Your task to perform on an android device: Go to Maps Image 0: 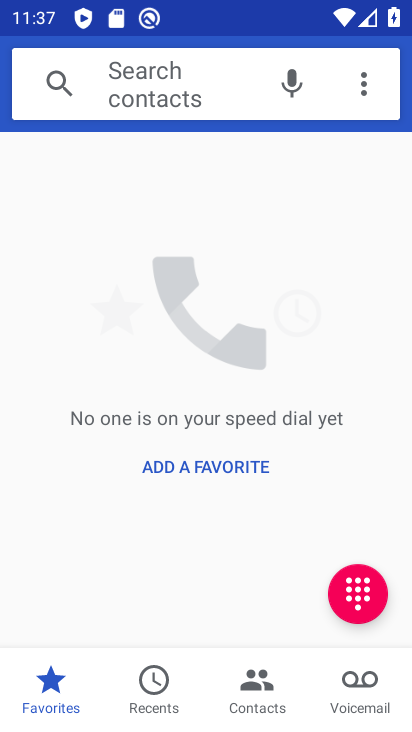
Step 0: press home button
Your task to perform on an android device: Go to Maps Image 1: 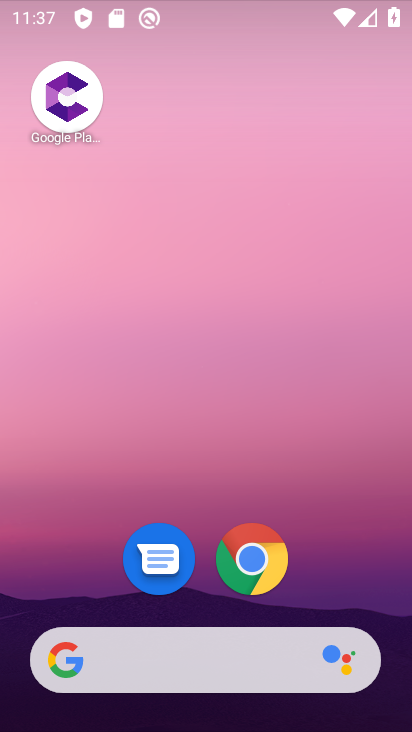
Step 1: drag from (335, 546) to (311, 152)
Your task to perform on an android device: Go to Maps Image 2: 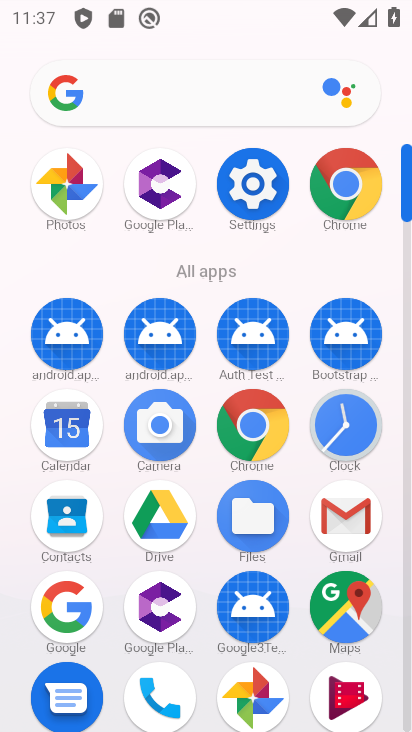
Step 2: click (340, 588)
Your task to perform on an android device: Go to Maps Image 3: 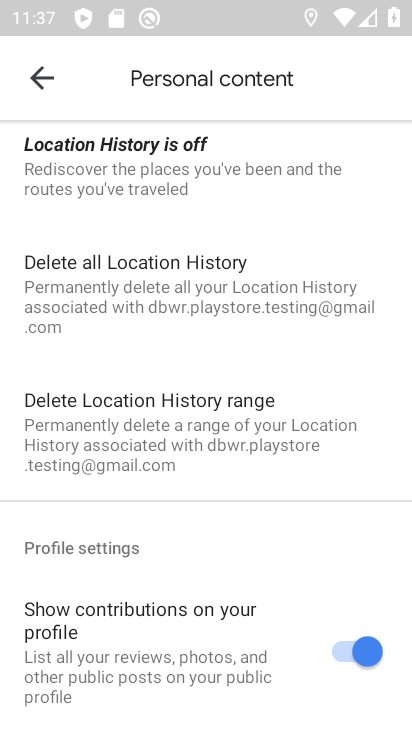
Step 3: click (30, 88)
Your task to perform on an android device: Go to Maps Image 4: 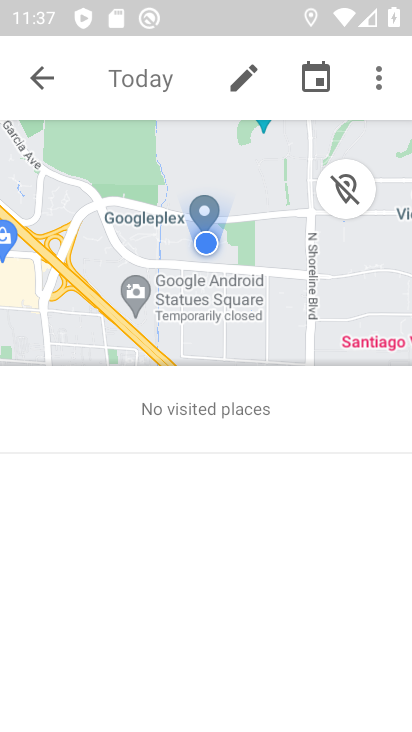
Step 4: click (30, 88)
Your task to perform on an android device: Go to Maps Image 5: 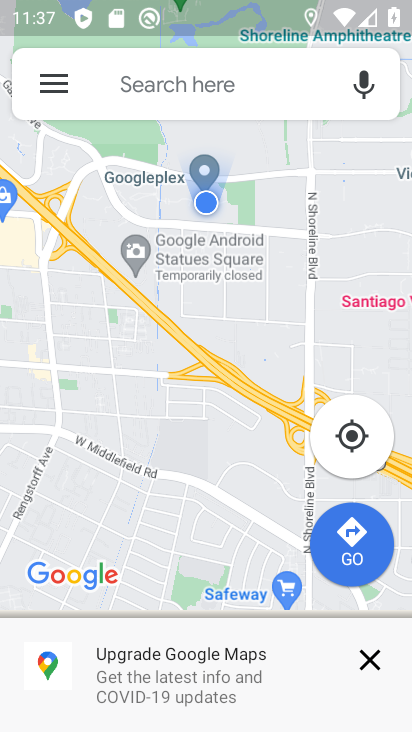
Step 5: click (369, 668)
Your task to perform on an android device: Go to Maps Image 6: 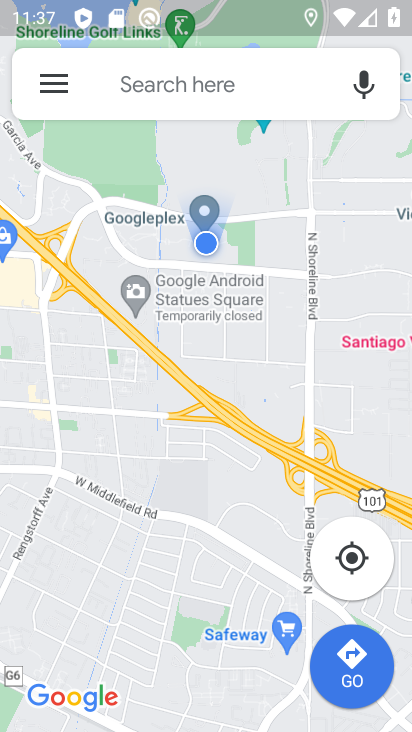
Step 6: task complete